Your task to perform on an android device: Open Google Maps and go to "Timeline" Image 0: 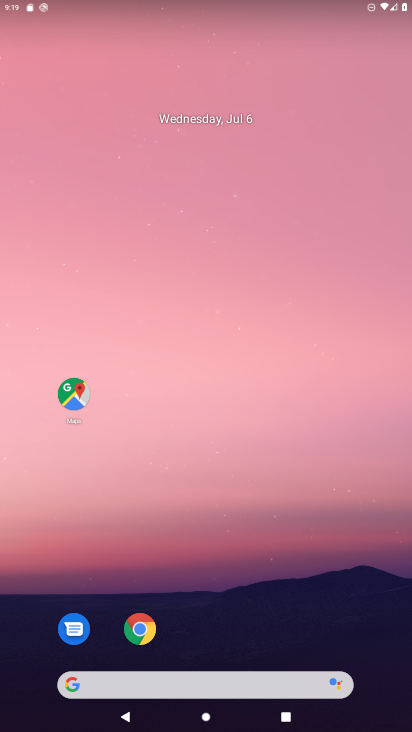
Step 0: drag from (280, 666) to (272, 0)
Your task to perform on an android device: Open Google Maps and go to "Timeline" Image 1: 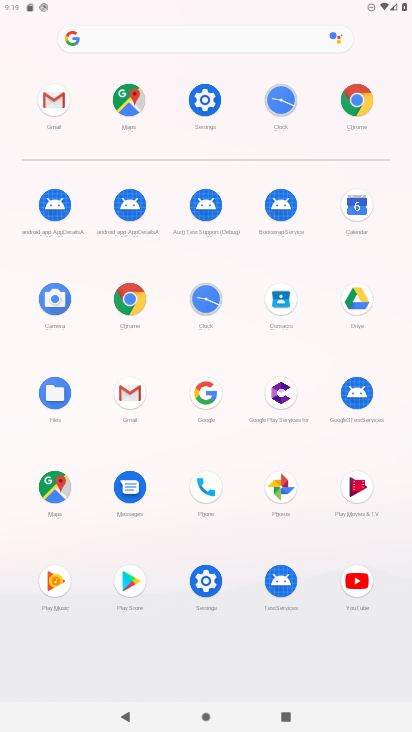
Step 1: click (43, 489)
Your task to perform on an android device: Open Google Maps and go to "Timeline" Image 2: 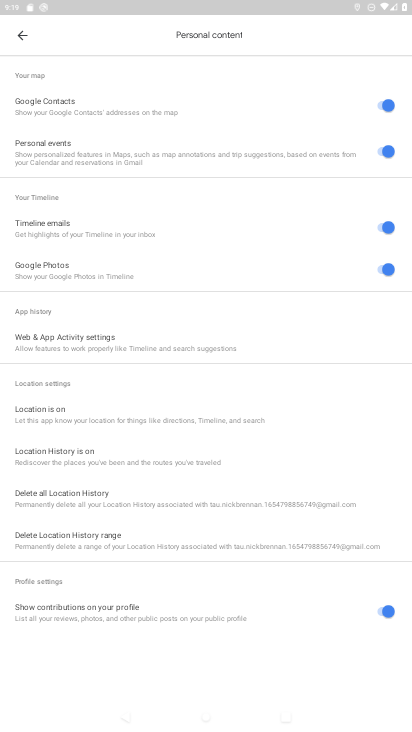
Step 2: task complete